Your task to perform on an android device: Open maps Image 0: 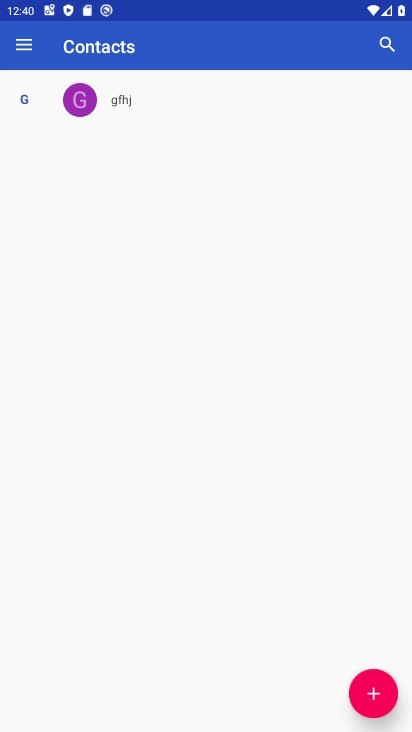
Step 0: press home button
Your task to perform on an android device: Open maps Image 1: 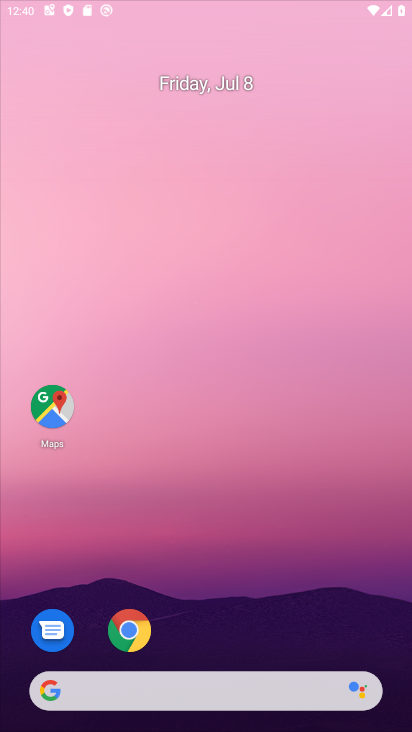
Step 1: drag from (389, 654) to (306, 72)
Your task to perform on an android device: Open maps Image 2: 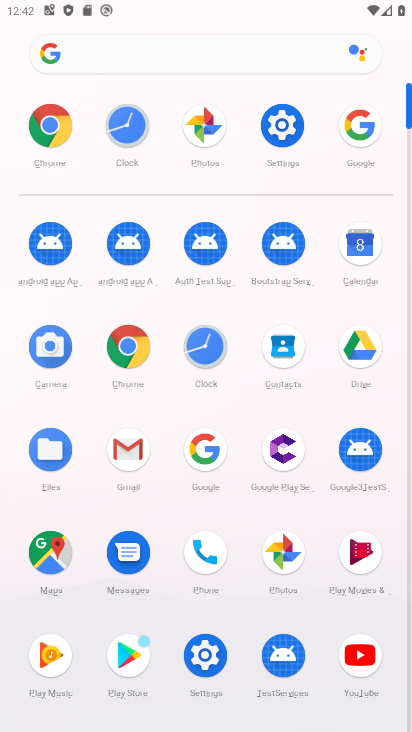
Step 2: click (52, 552)
Your task to perform on an android device: Open maps Image 3: 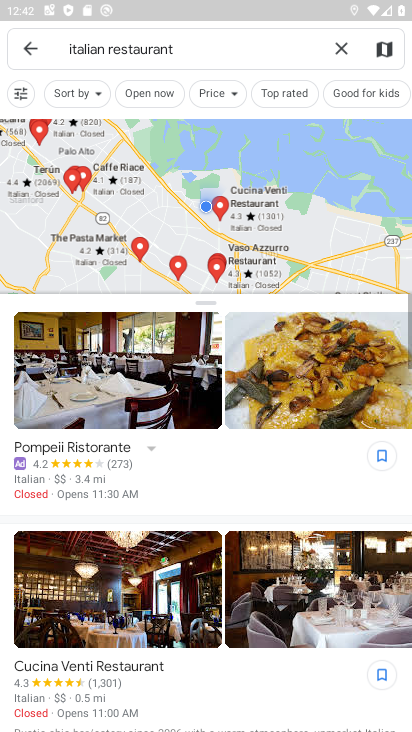
Step 3: click (349, 48)
Your task to perform on an android device: Open maps Image 4: 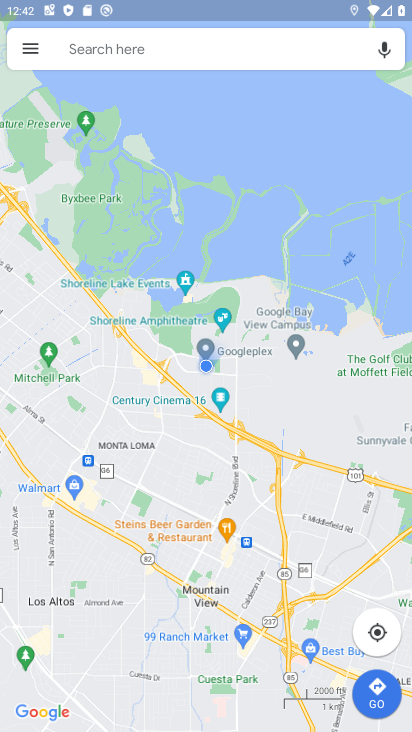
Step 4: task complete